Your task to perform on an android device: change text size in settings app Image 0: 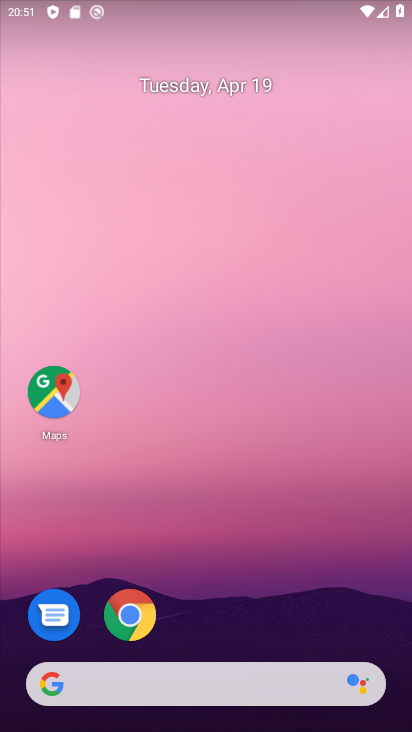
Step 0: click (273, 307)
Your task to perform on an android device: change text size in settings app Image 1: 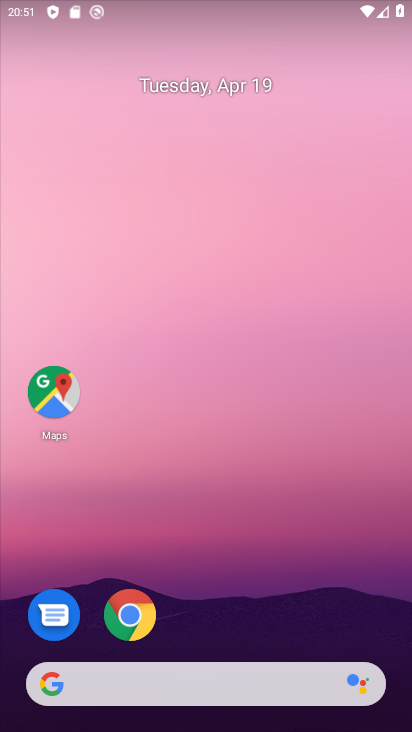
Step 1: drag from (227, 659) to (262, 319)
Your task to perform on an android device: change text size in settings app Image 2: 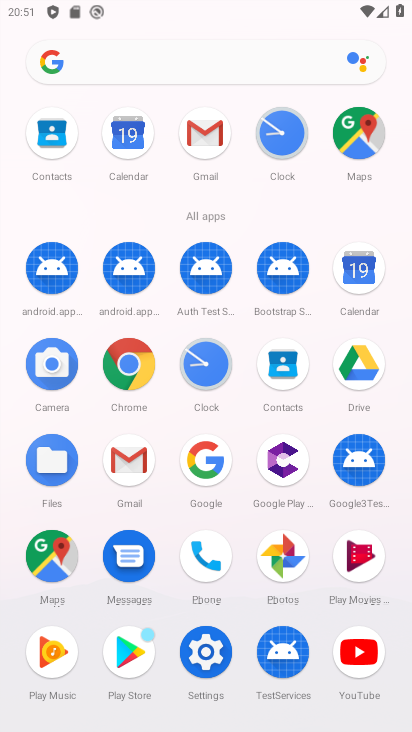
Step 2: click (196, 653)
Your task to perform on an android device: change text size in settings app Image 3: 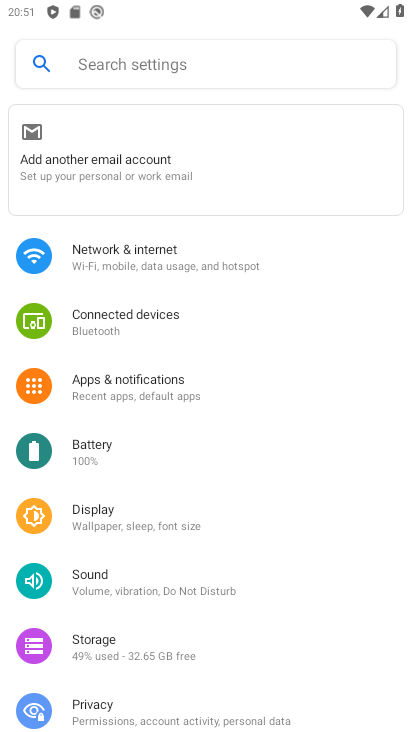
Step 3: drag from (194, 682) to (257, 278)
Your task to perform on an android device: change text size in settings app Image 4: 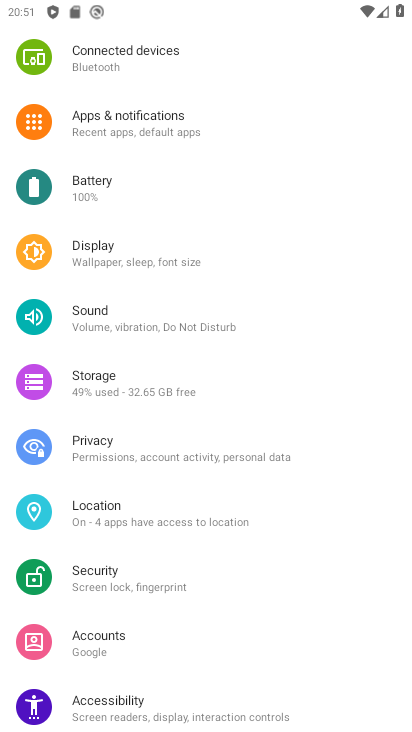
Step 4: click (148, 709)
Your task to perform on an android device: change text size in settings app Image 5: 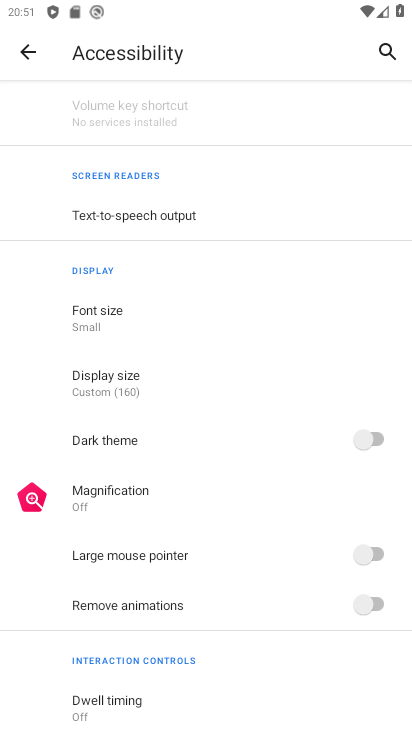
Step 5: click (116, 327)
Your task to perform on an android device: change text size in settings app Image 6: 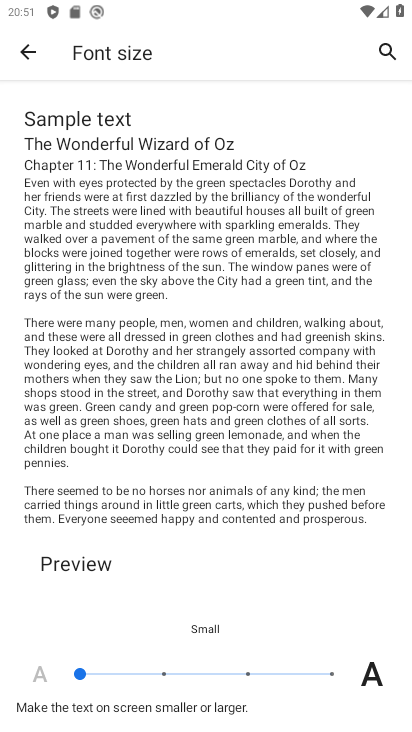
Step 6: click (162, 675)
Your task to perform on an android device: change text size in settings app Image 7: 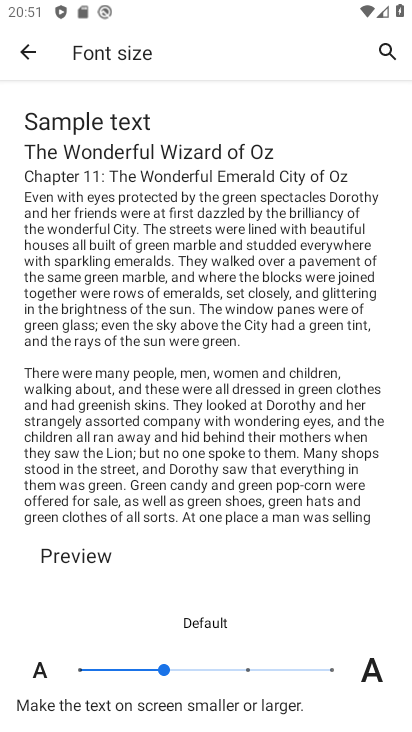
Step 7: task complete